Your task to perform on an android device: What time is it in Los Angeles? Image 0: 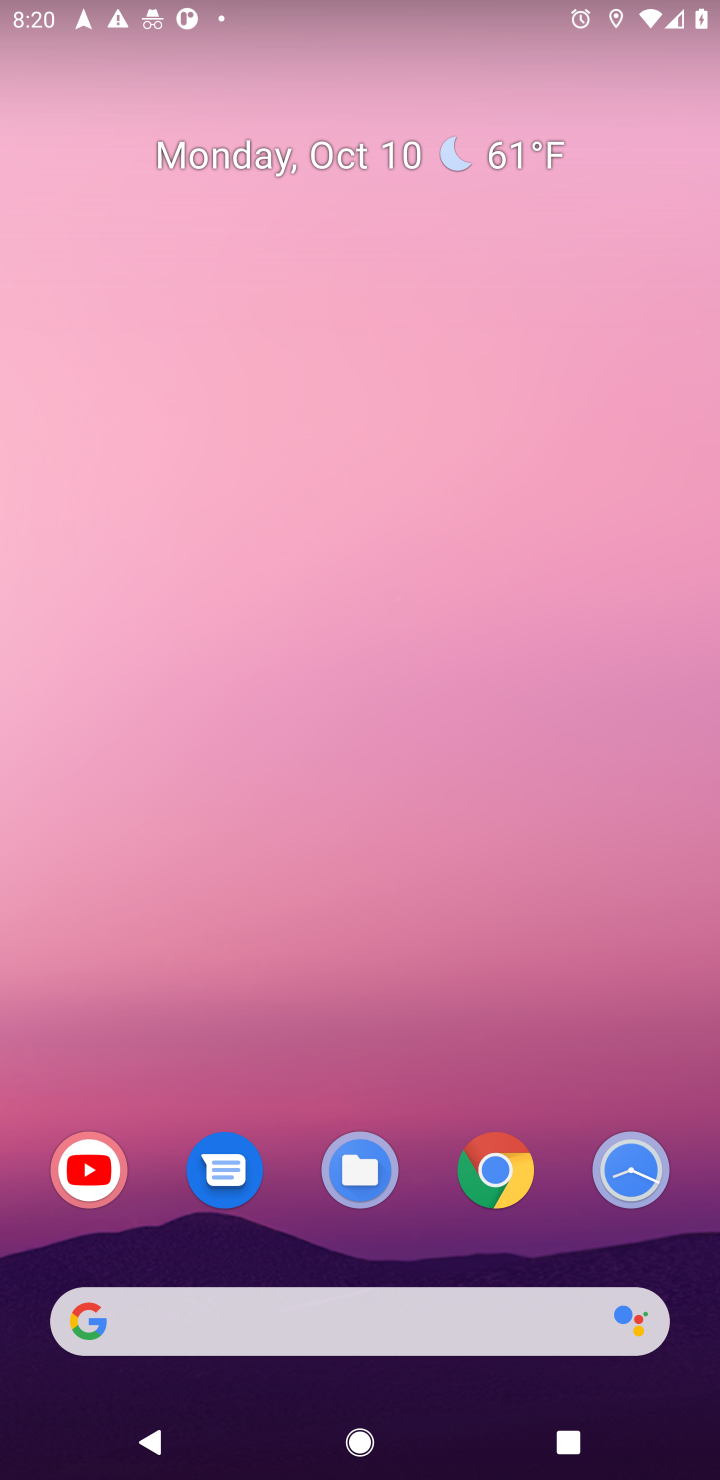
Step 0: click (487, 1167)
Your task to perform on an android device: What time is it in Los Angeles? Image 1: 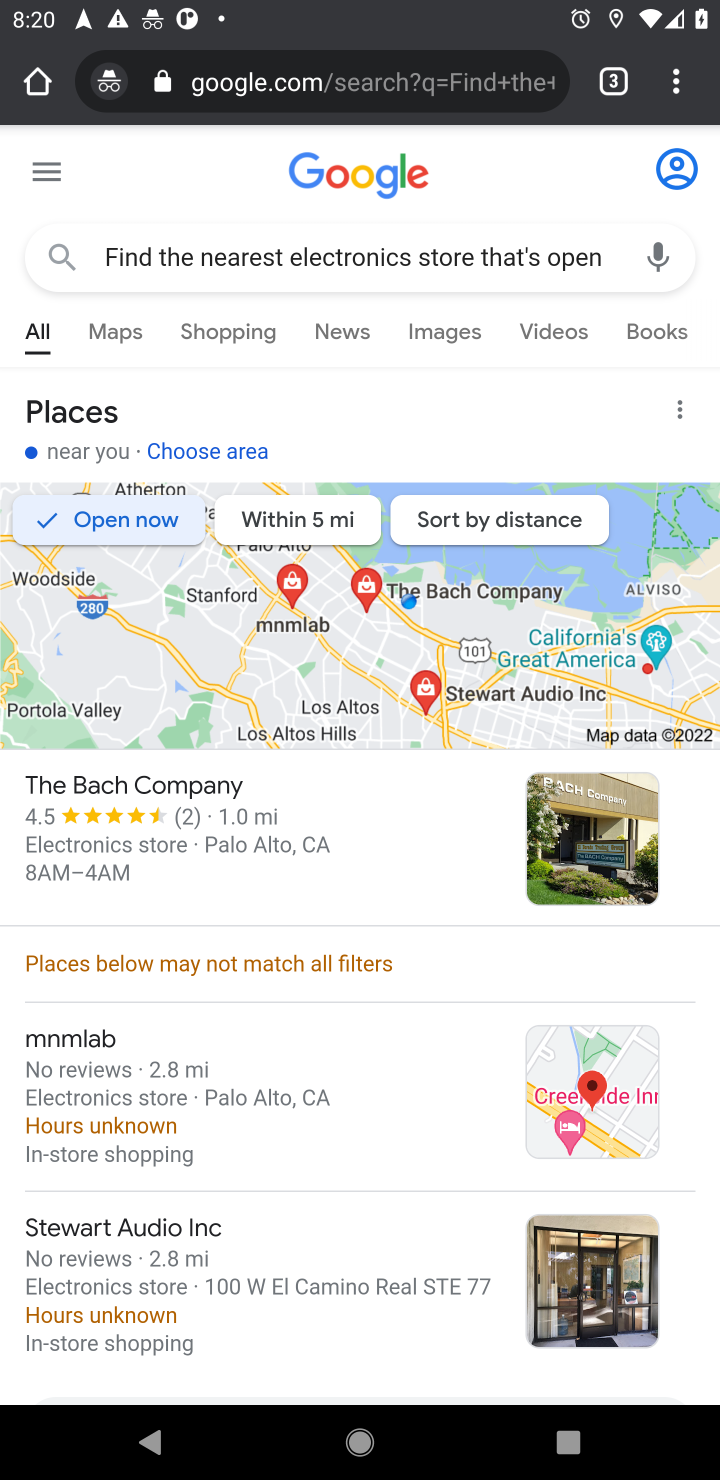
Step 1: click (331, 77)
Your task to perform on an android device: What time is it in Los Angeles? Image 2: 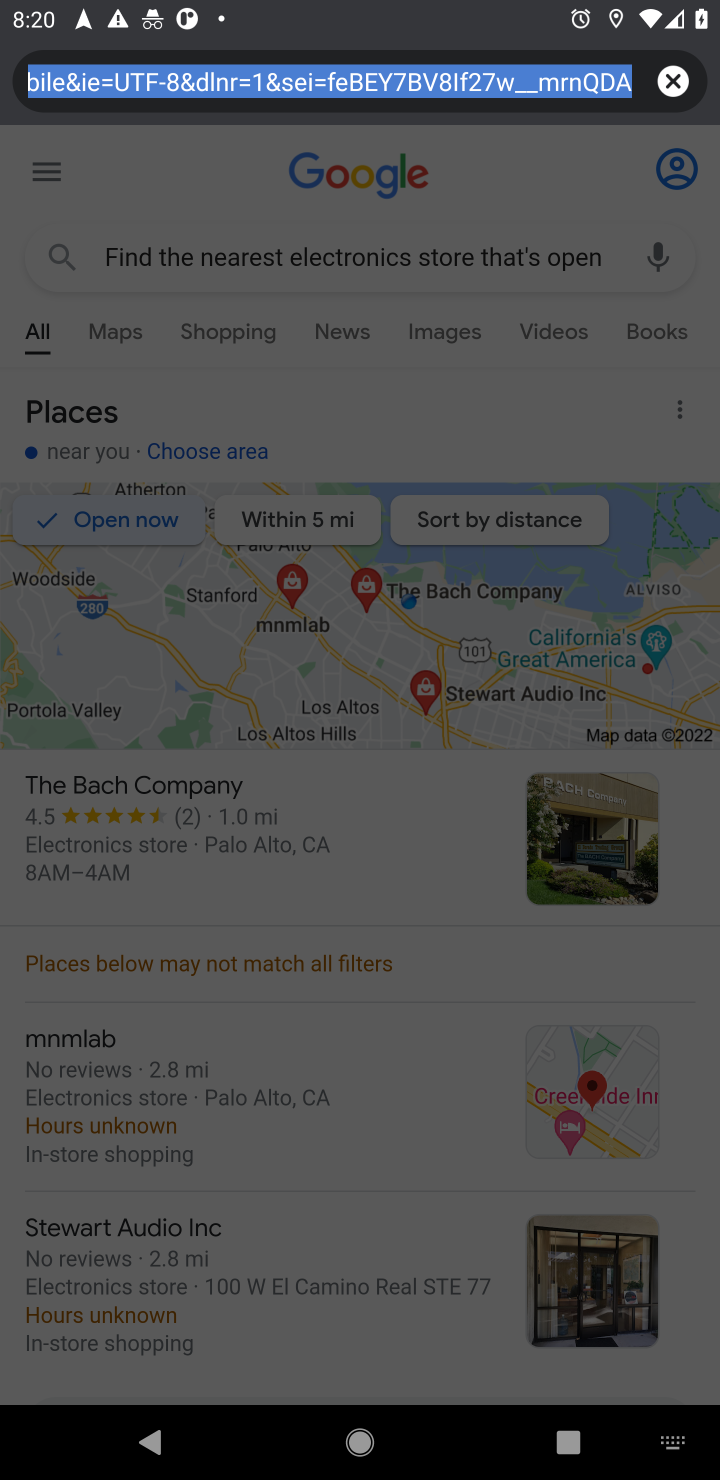
Step 2: type "time in LA"
Your task to perform on an android device: What time is it in Los Angeles? Image 3: 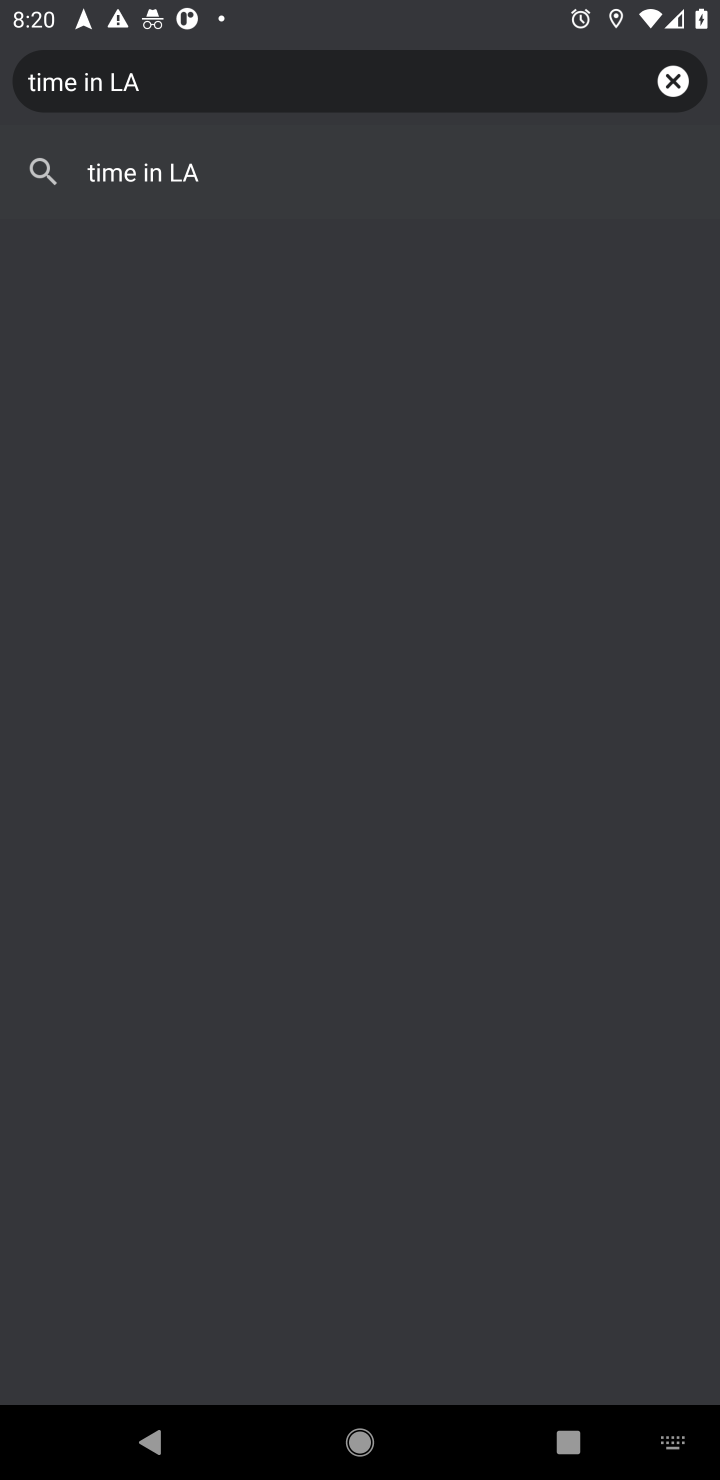
Step 3: click (147, 191)
Your task to perform on an android device: What time is it in Los Angeles? Image 4: 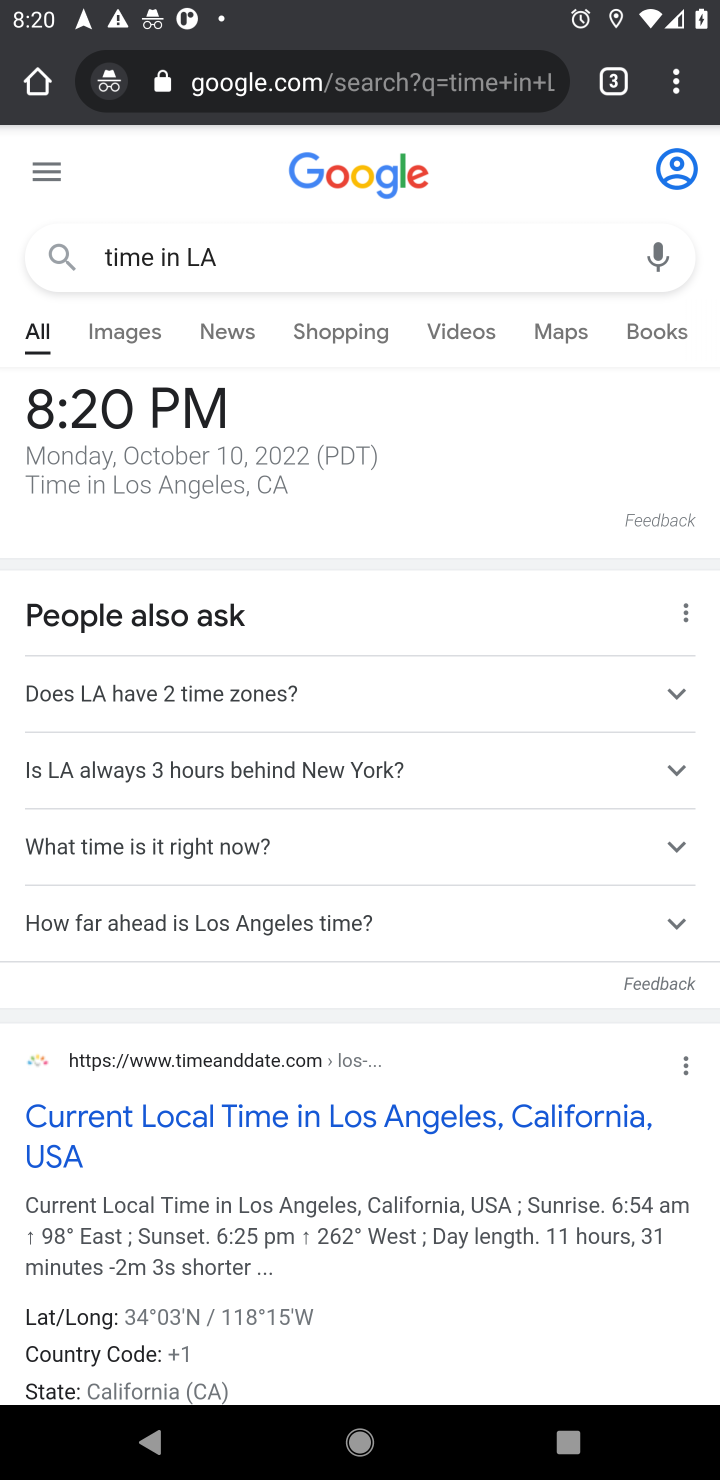
Step 4: task complete